Your task to perform on an android device: check data usage Image 0: 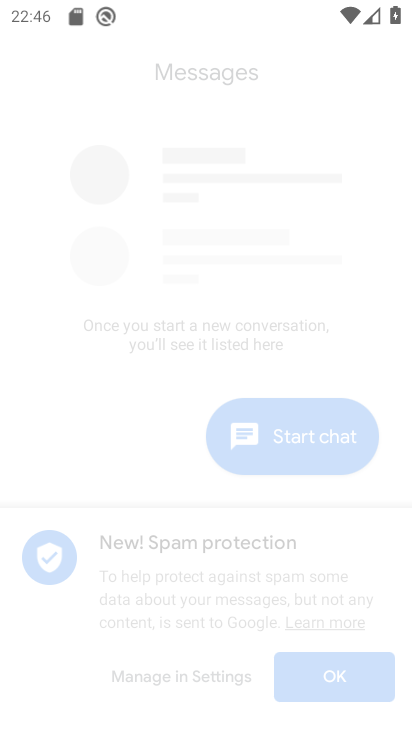
Step 0: drag from (218, 602) to (230, 55)
Your task to perform on an android device: check data usage Image 1: 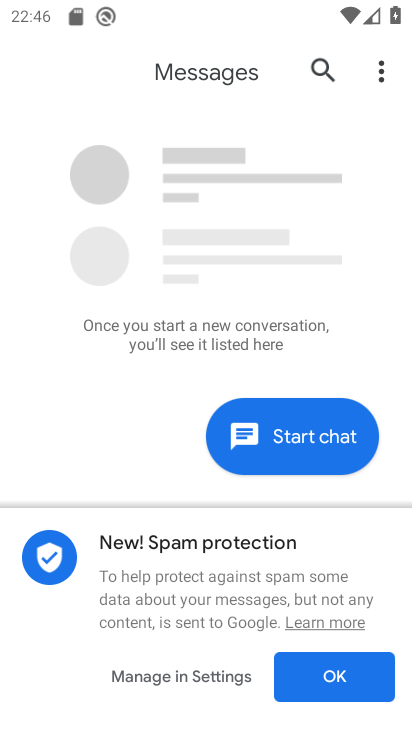
Step 1: press home button
Your task to perform on an android device: check data usage Image 2: 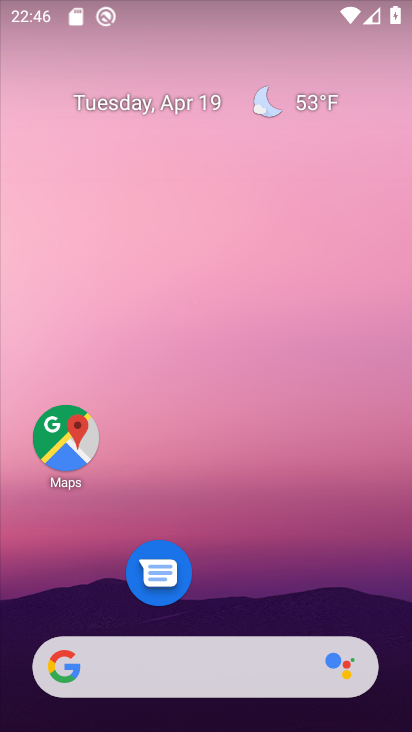
Step 2: drag from (226, 616) to (226, 122)
Your task to perform on an android device: check data usage Image 3: 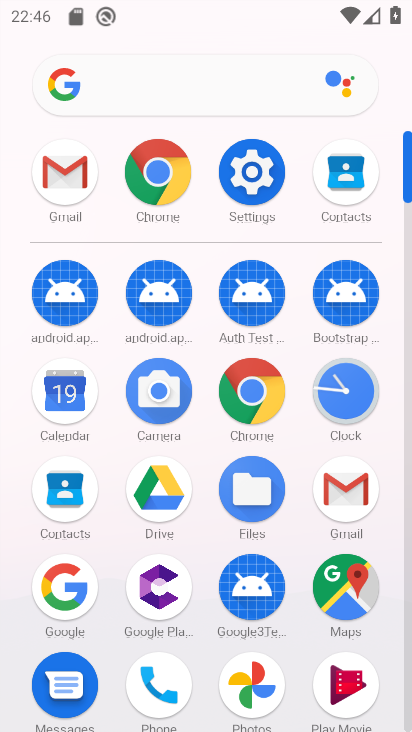
Step 3: click (248, 161)
Your task to perform on an android device: check data usage Image 4: 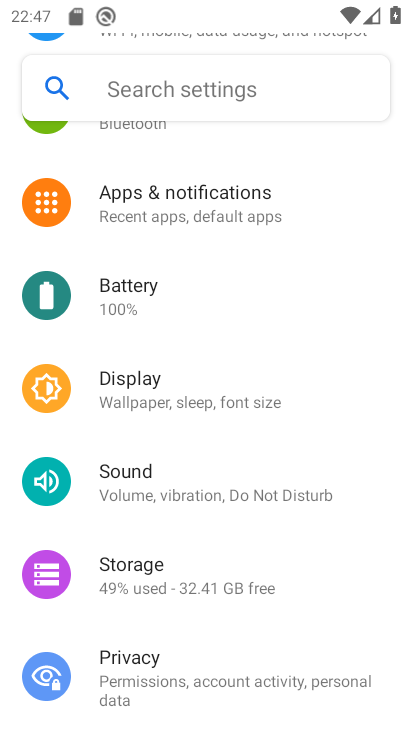
Step 4: drag from (185, 183) to (217, 671)
Your task to perform on an android device: check data usage Image 5: 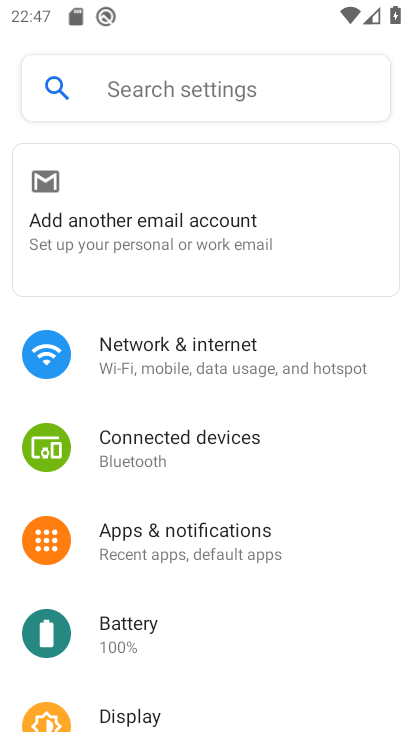
Step 5: click (208, 361)
Your task to perform on an android device: check data usage Image 6: 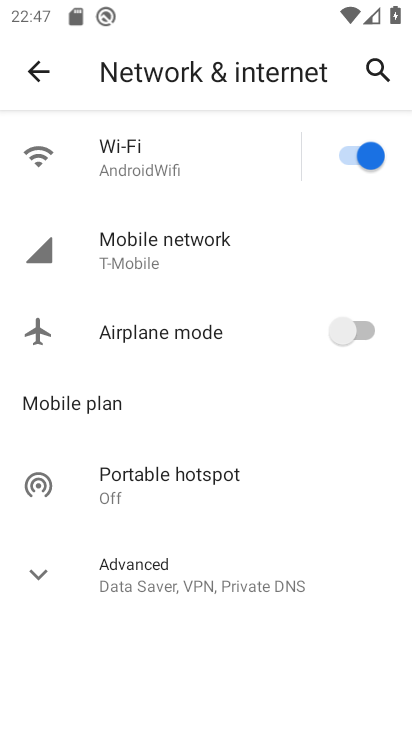
Step 6: click (168, 244)
Your task to perform on an android device: check data usage Image 7: 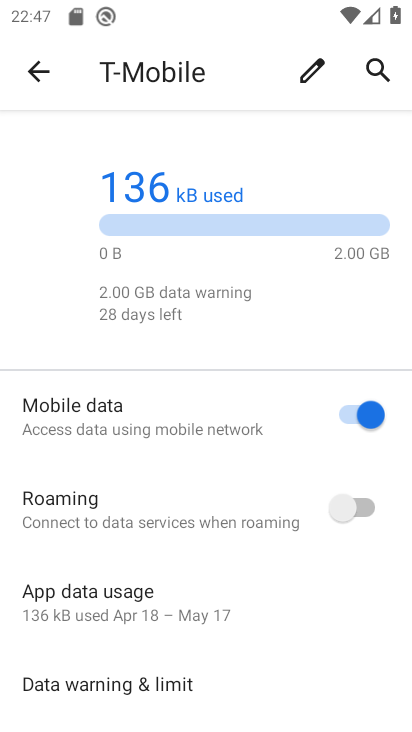
Step 7: click (173, 600)
Your task to perform on an android device: check data usage Image 8: 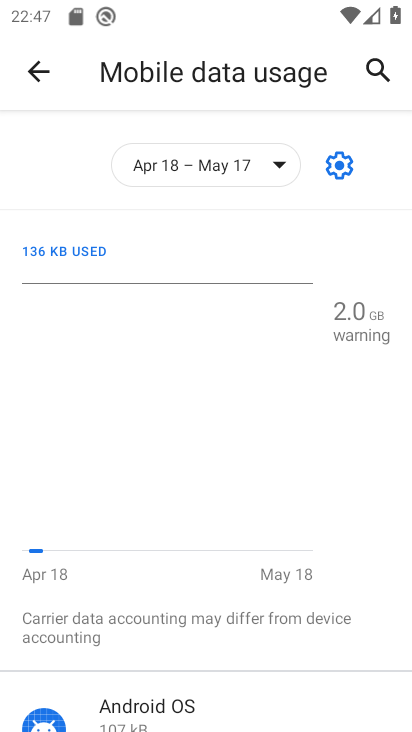
Step 8: task complete